Your task to perform on an android device: Search for the best rated 3d printer on Amazon. Image 0: 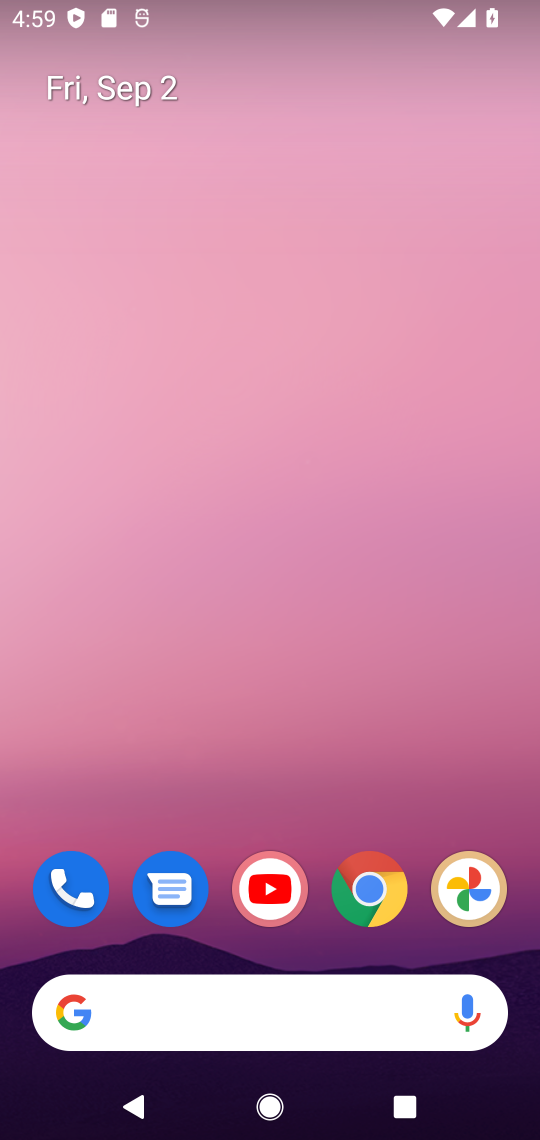
Step 0: click (371, 874)
Your task to perform on an android device: Search for the best rated 3d printer on Amazon. Image 1: 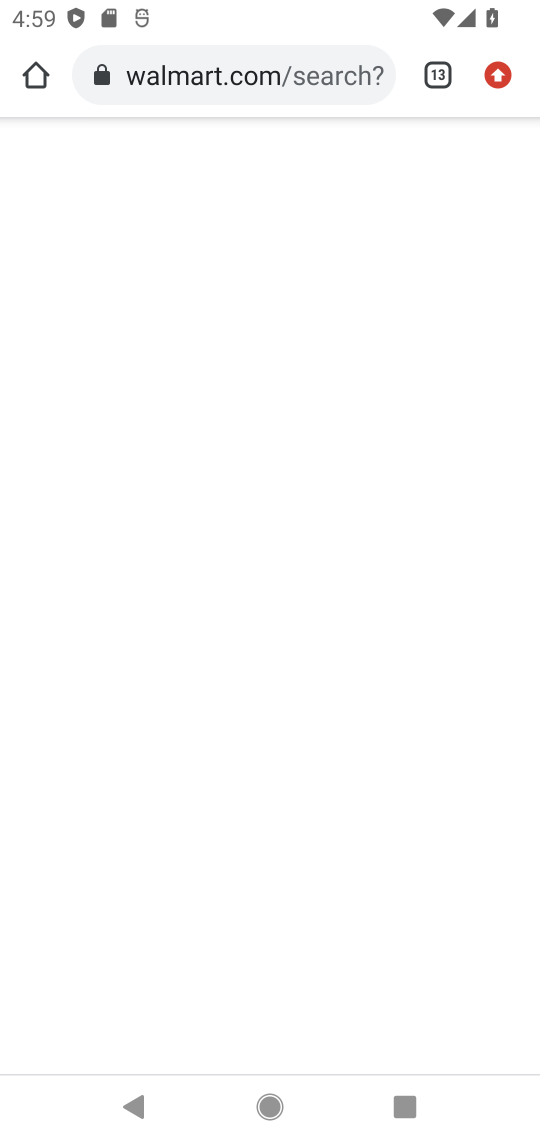
Step 1: click (437, 66)
Your task to perform on an android device: Search for the best rated 3d printer on Amazon. Image 2: 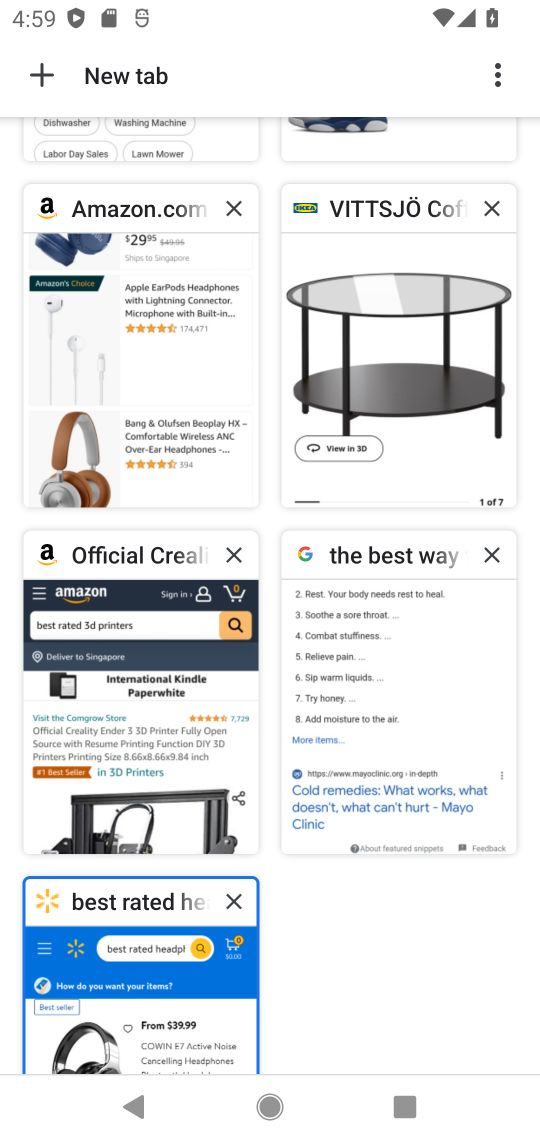
Step 2: click (42, 72)
Your task to perform on an android device: Search for the best rated 3d printer on Amazon. Image 3: 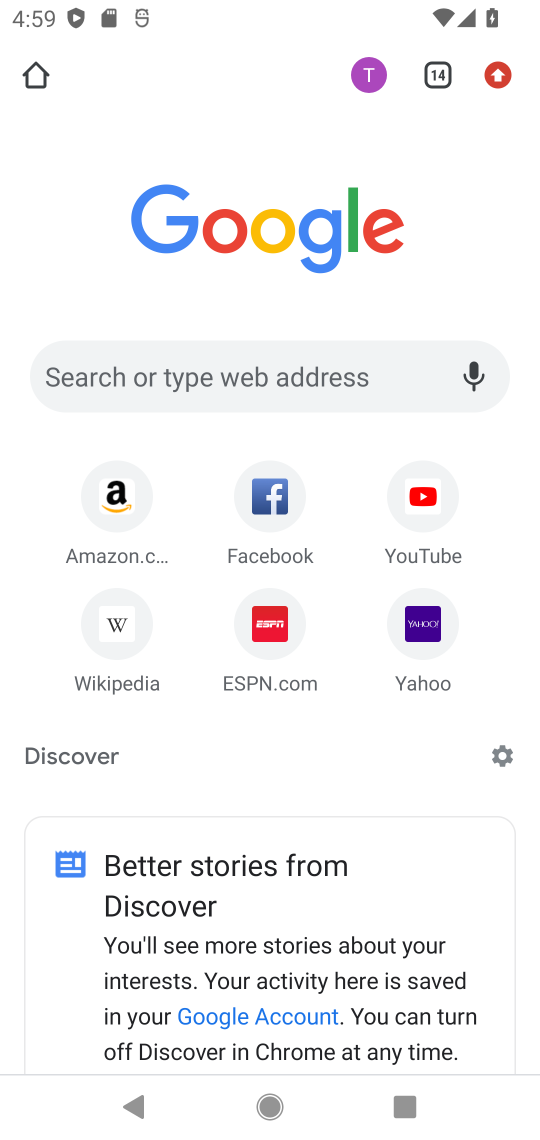
Step 3: click (256, 363)
Your task to perform on an android device: Search for the best rated 3d printer on Amazon. Image 4: 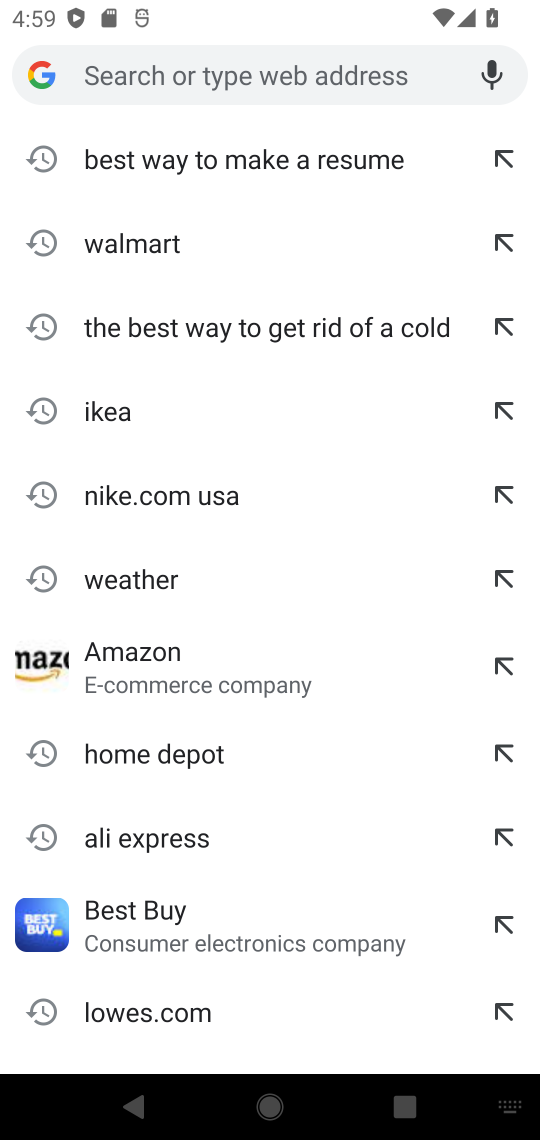
Step 4: click (228, 667)
Your task to perform on an android device: Search for the best rated 3d printer on Amazon. Image 5: 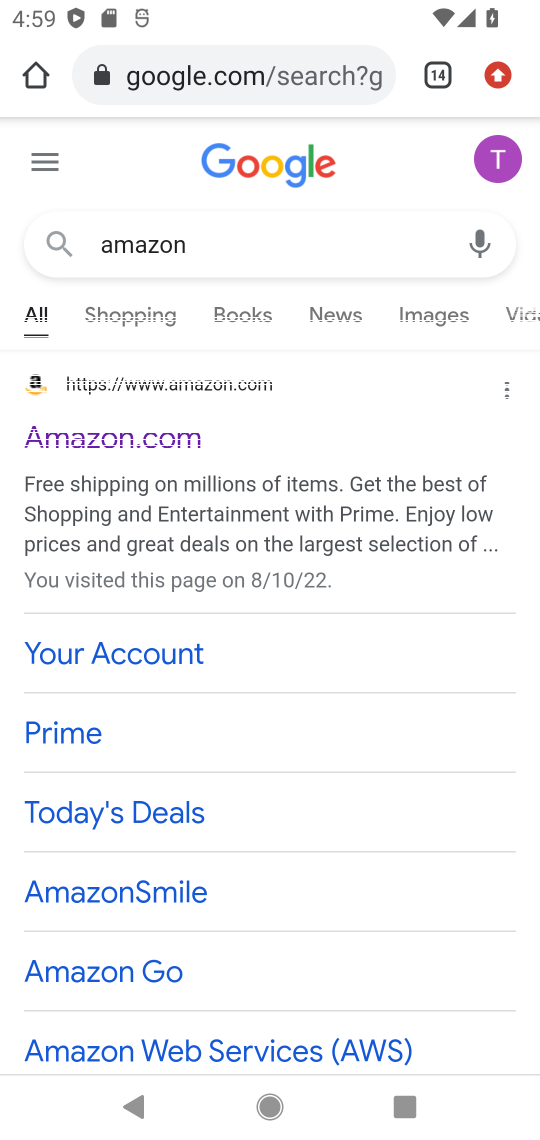
Step 5: click (175, 452)
Your task to perform on an android device: Search for the best rated 3d printer on Amazon. Image 6: 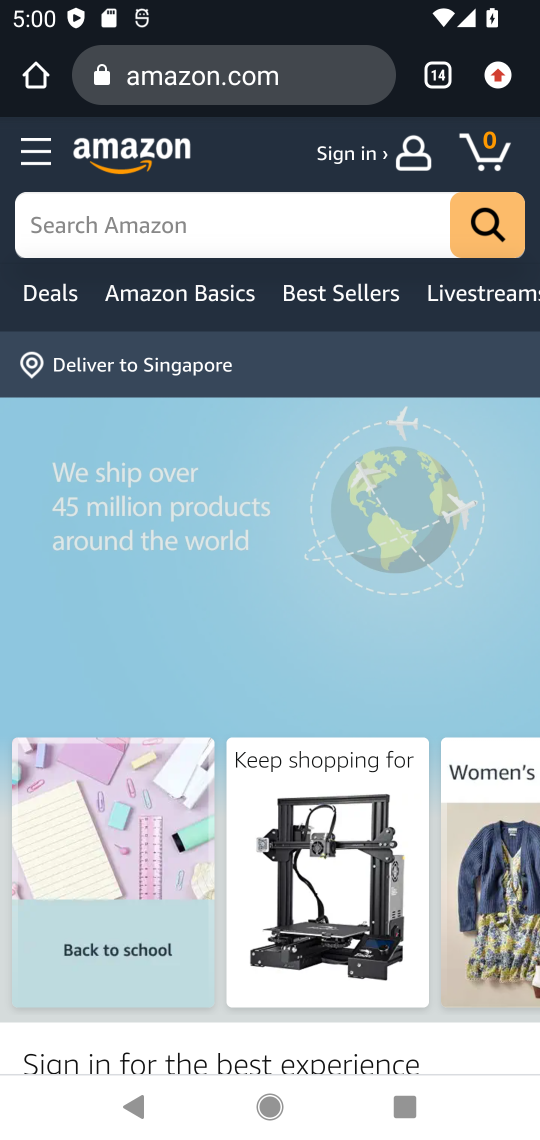
Step 6: click (276, 220)
Your task to perform on an android device: Search for the best rated 3d printer on Amazon. Image 7: 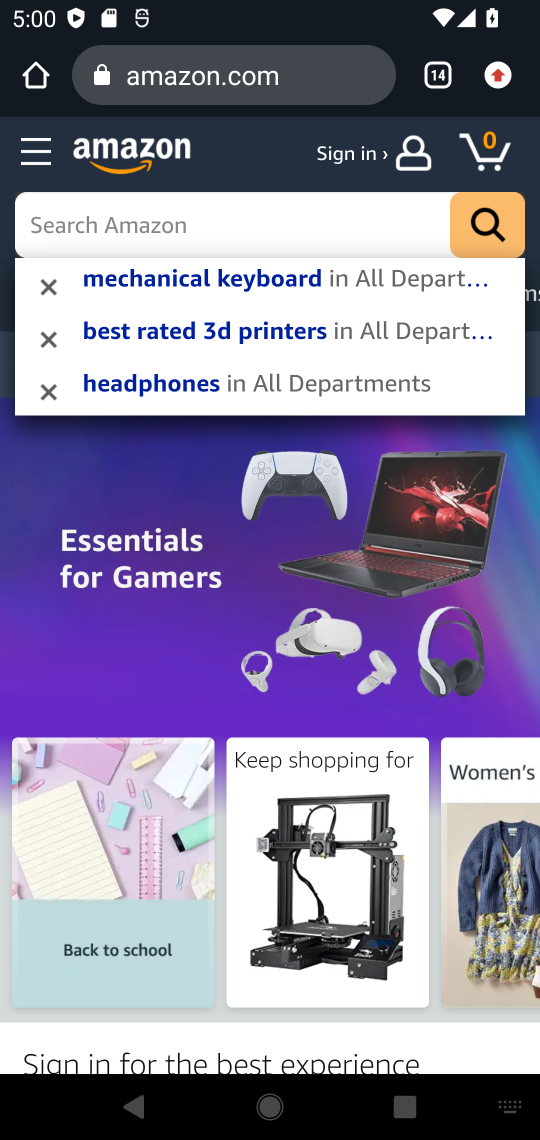
Step 7: type "best rated 3d printer"
Your task to perform on an android device: Search for the best rated 3d printer on Amazon. Image 8: 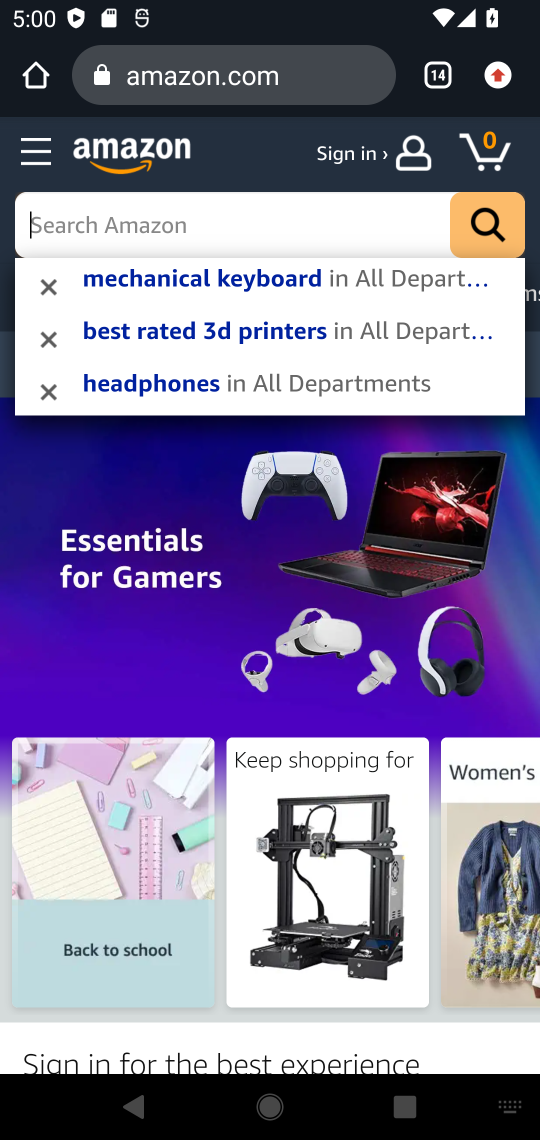
Step 8: click (330, 319)
Your task to perform on an android device: Search for the best rated 3d printer on Amazon. Image 9: 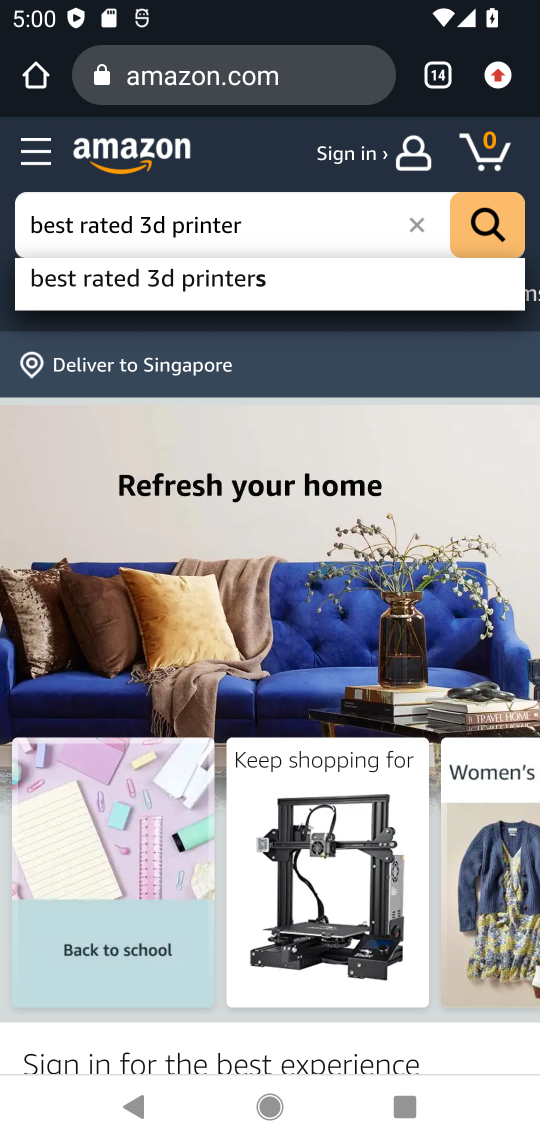
Step 9: click (284, 289)
Your task to perform on an android device: Search for the best rated 3d printer on Amazon. Image 10: 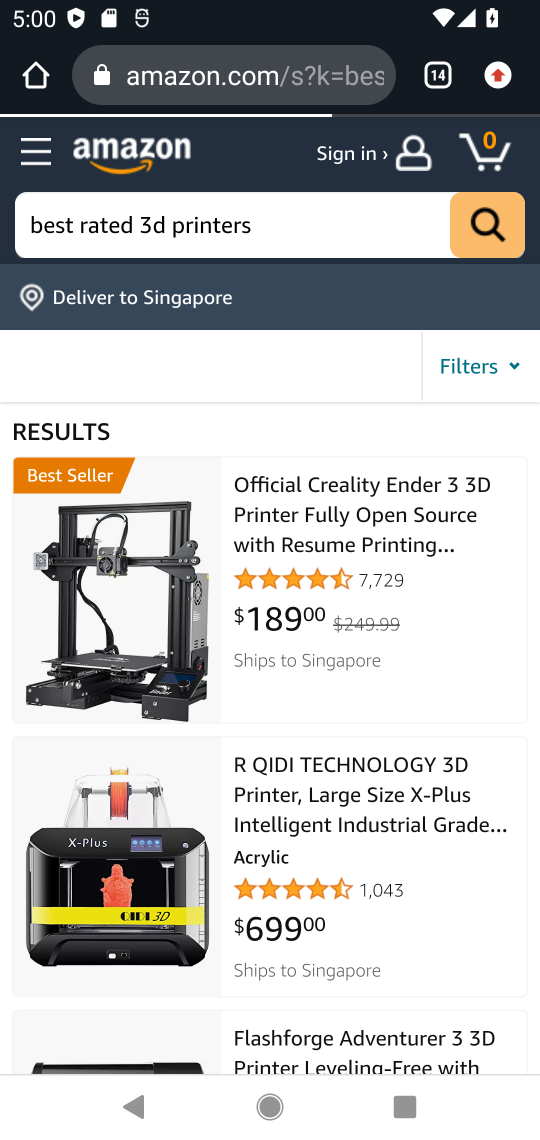
Step 10: click (242, 287)
Your task to perform on an android device: Search for the best rated 3d printer on Amazon. Image 11: 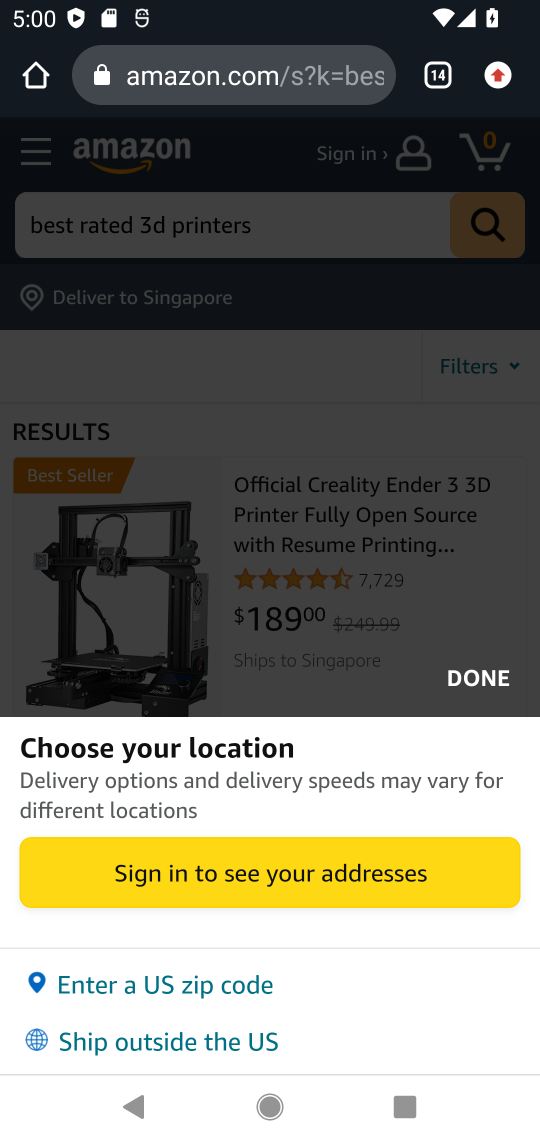
Step 11: click (441, 628)
Your task to perform on an android device: Search for the best rated 3d printer on Amazon. Image 12: 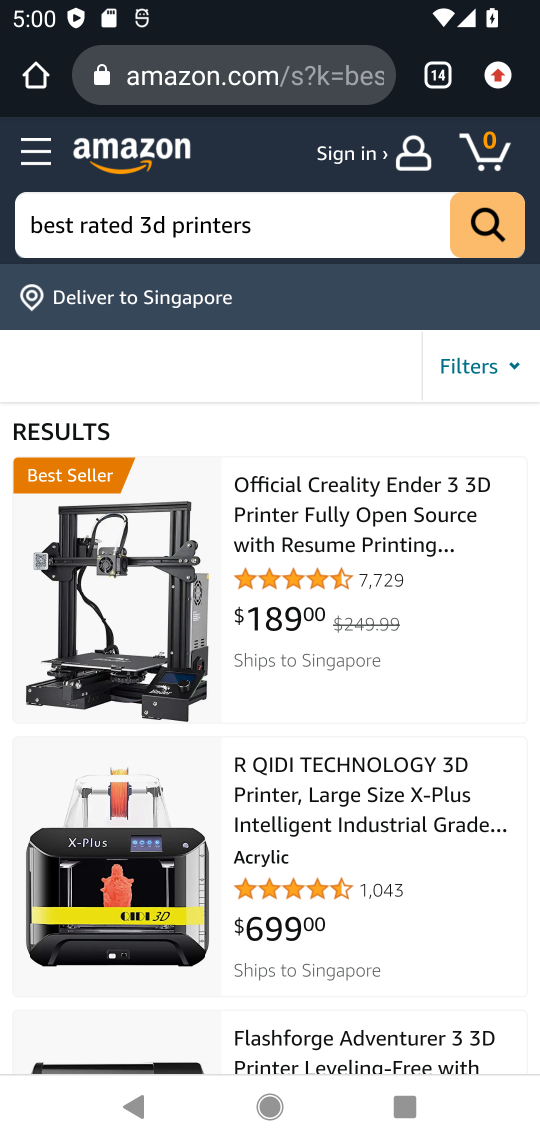
Step 12: task complete